Your task to perform on an android device: install app "Google Play services" Image 0: 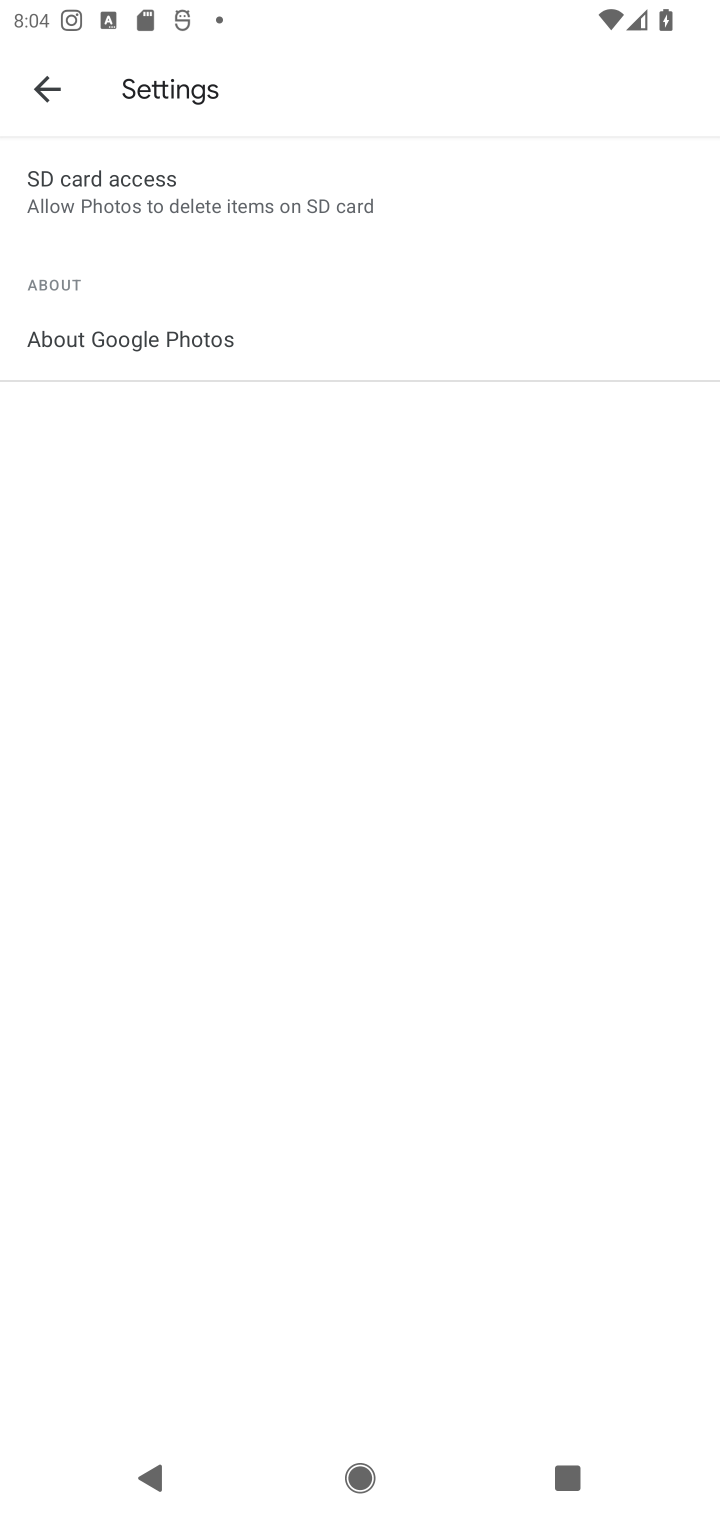
Step 0: press home button
Your task to perform on an android device: install app "Google Play services" Image 1: 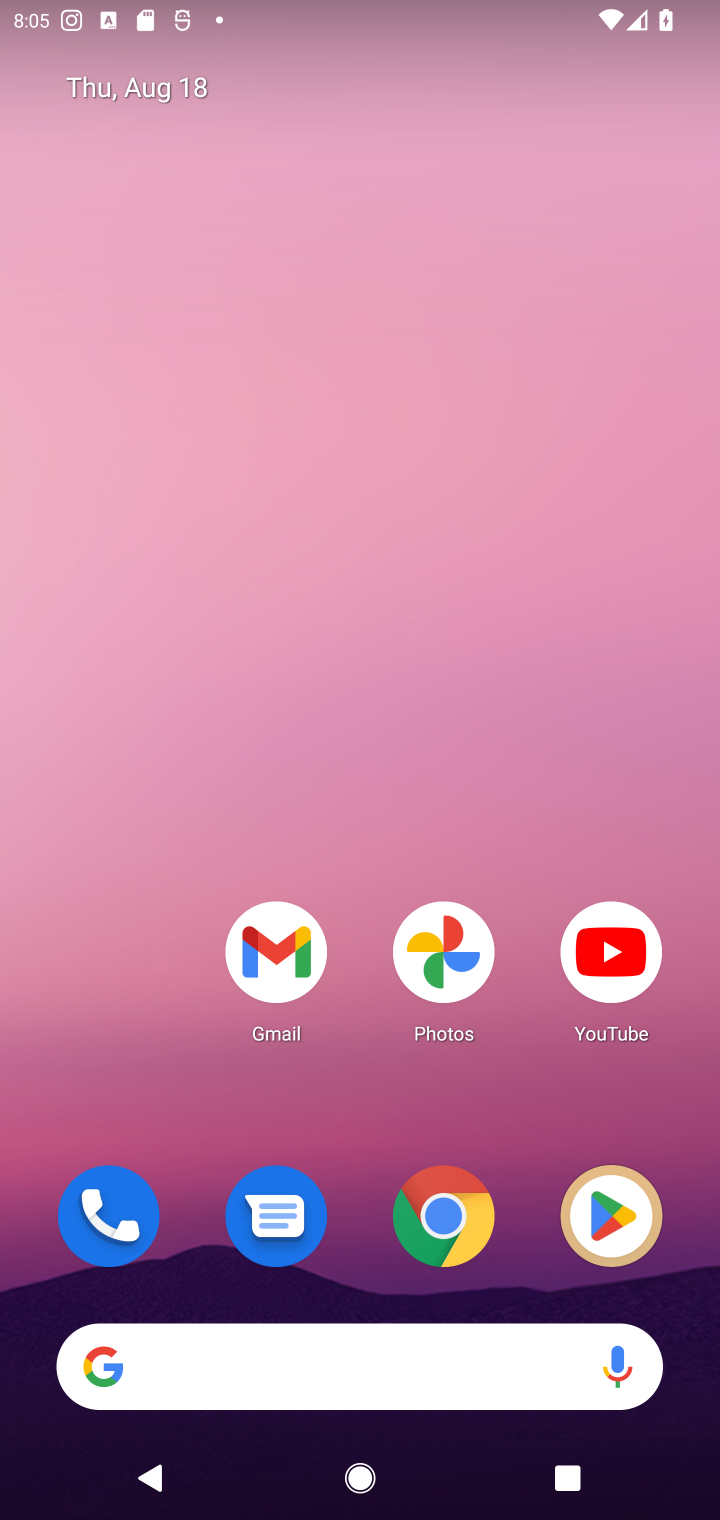
Step 1: click (587, 1211)
Your task to perform on an android device: install app "Google Play services" Image 2: 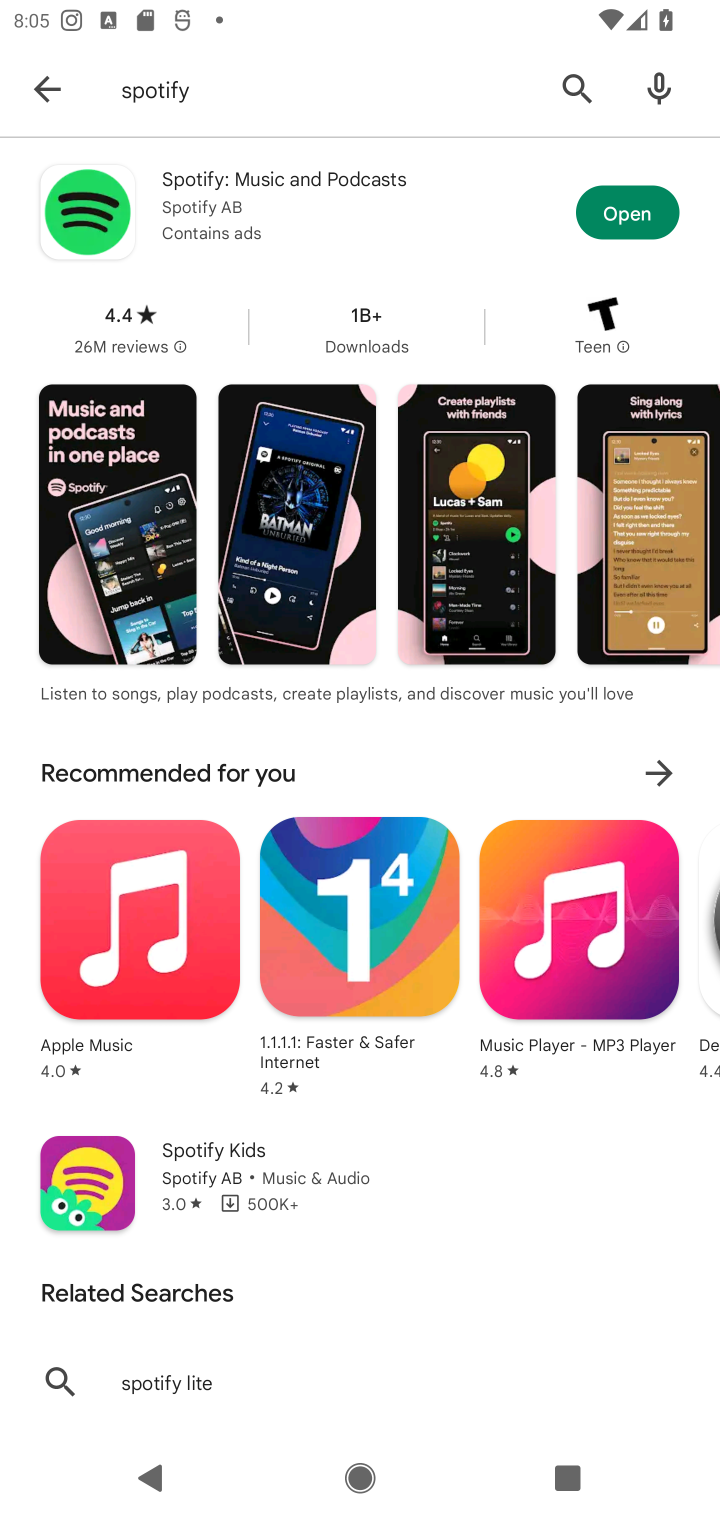
Step 2: click (573, 79)
Your task to perform on an android device: install app "Google Play services" Image 3: 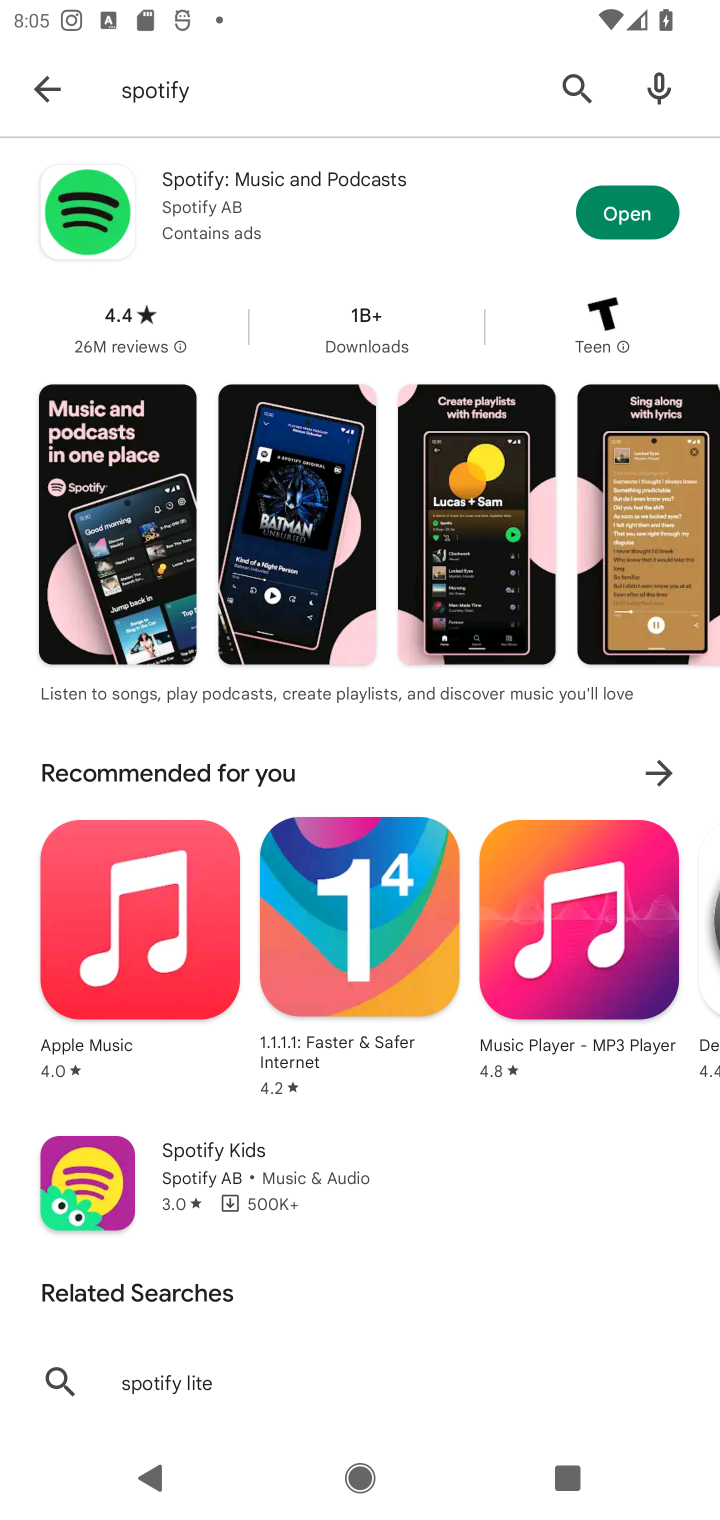
Step 3: click (573, 79)
Your task to perform on an android device: install app "Google Play services" Image 4: 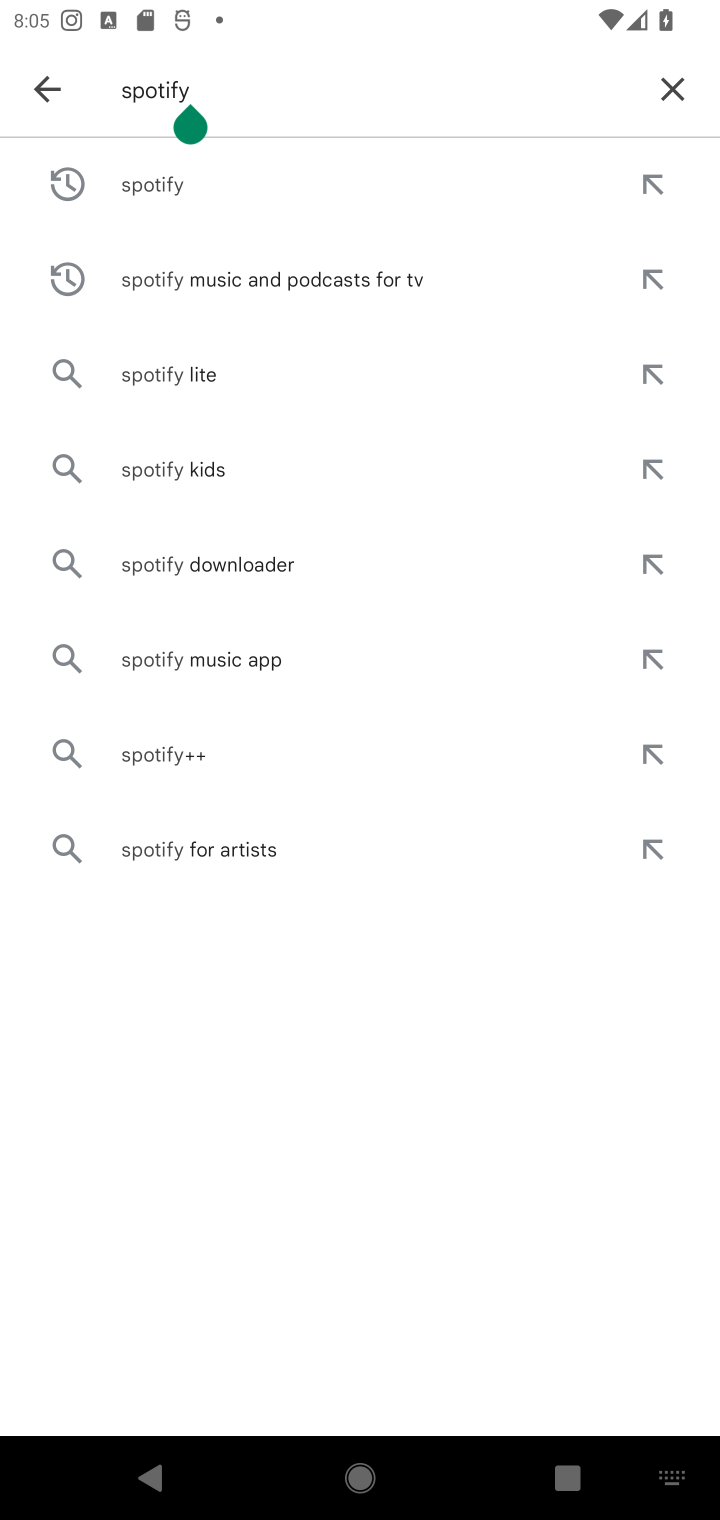
Step 4: click (660, 86)
Your task to perform on an android device: install app "Google Play services" Image 5: 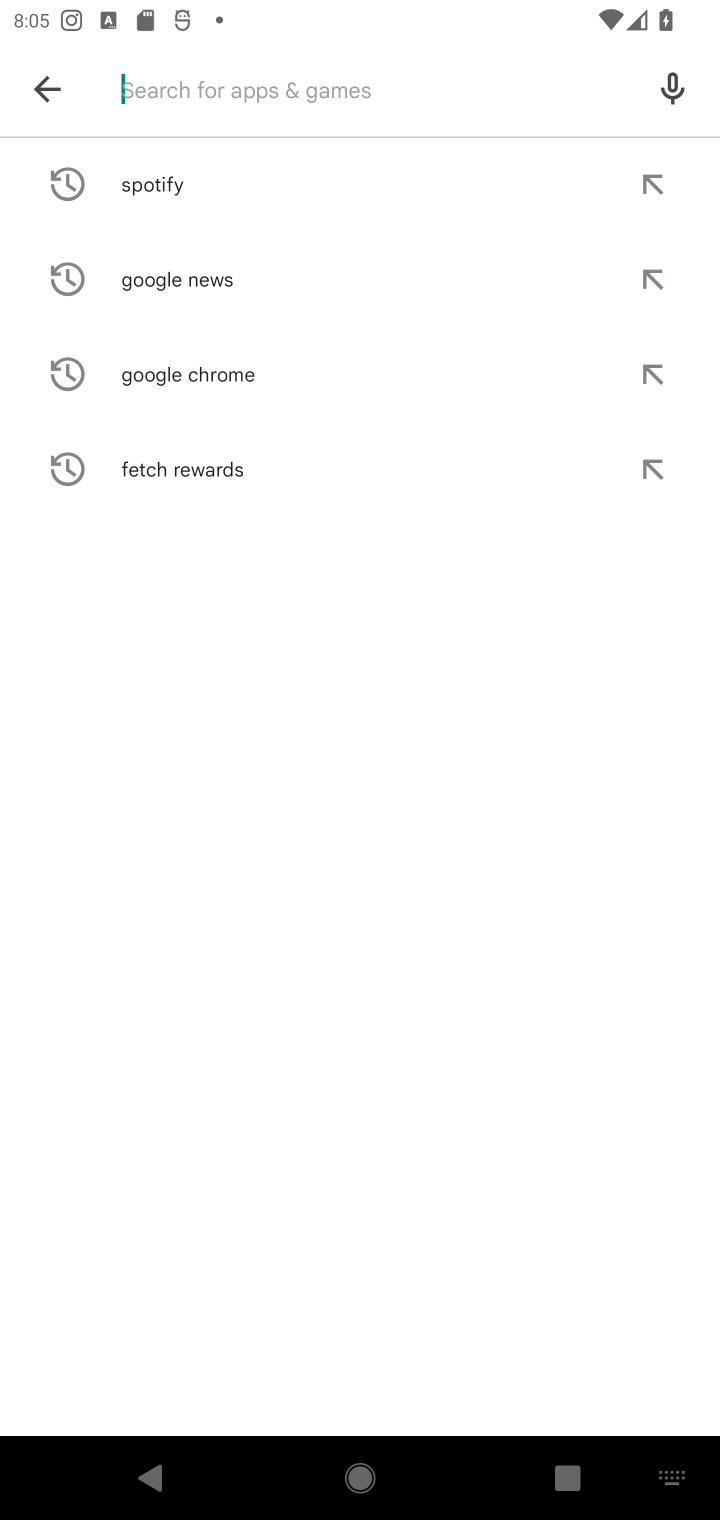
Step 5: type "Google Play services"
Your task to perform on an android device: install app "Google Play services" Image 6: 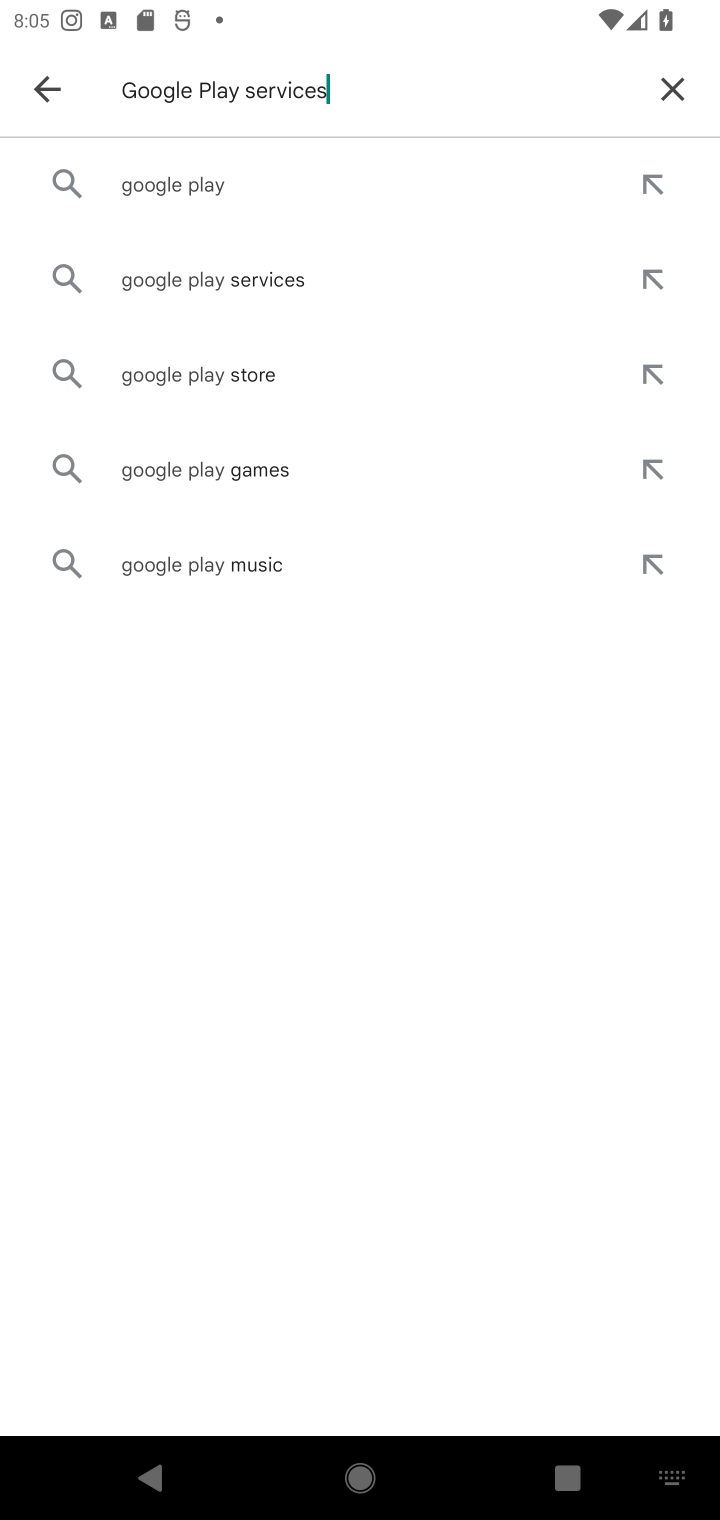
Step 6: type ""
Your task to perform on an android device: install app "Google Play services" Image 7: 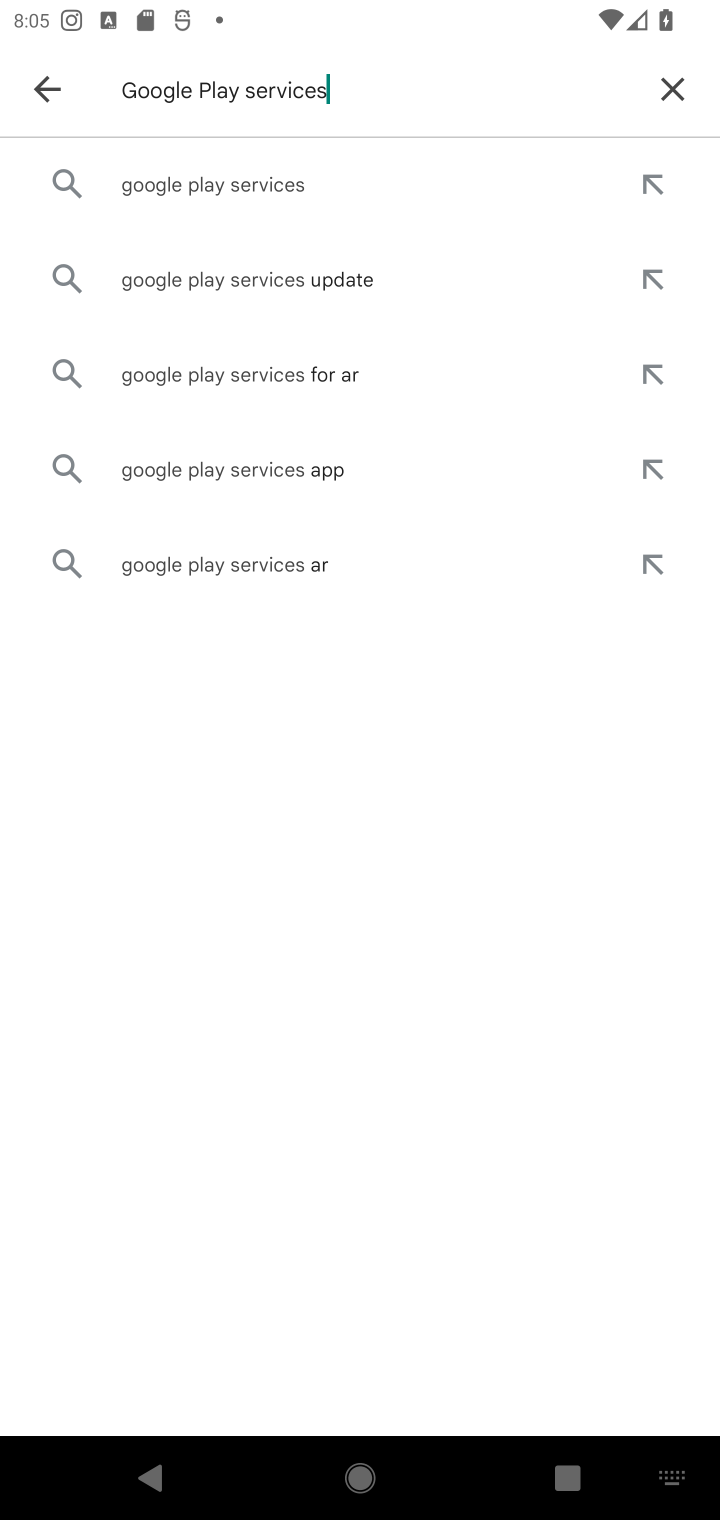
Step 7: click (325, 161)
Your task to perform on an android device: install app "Google Play services" Image 8: 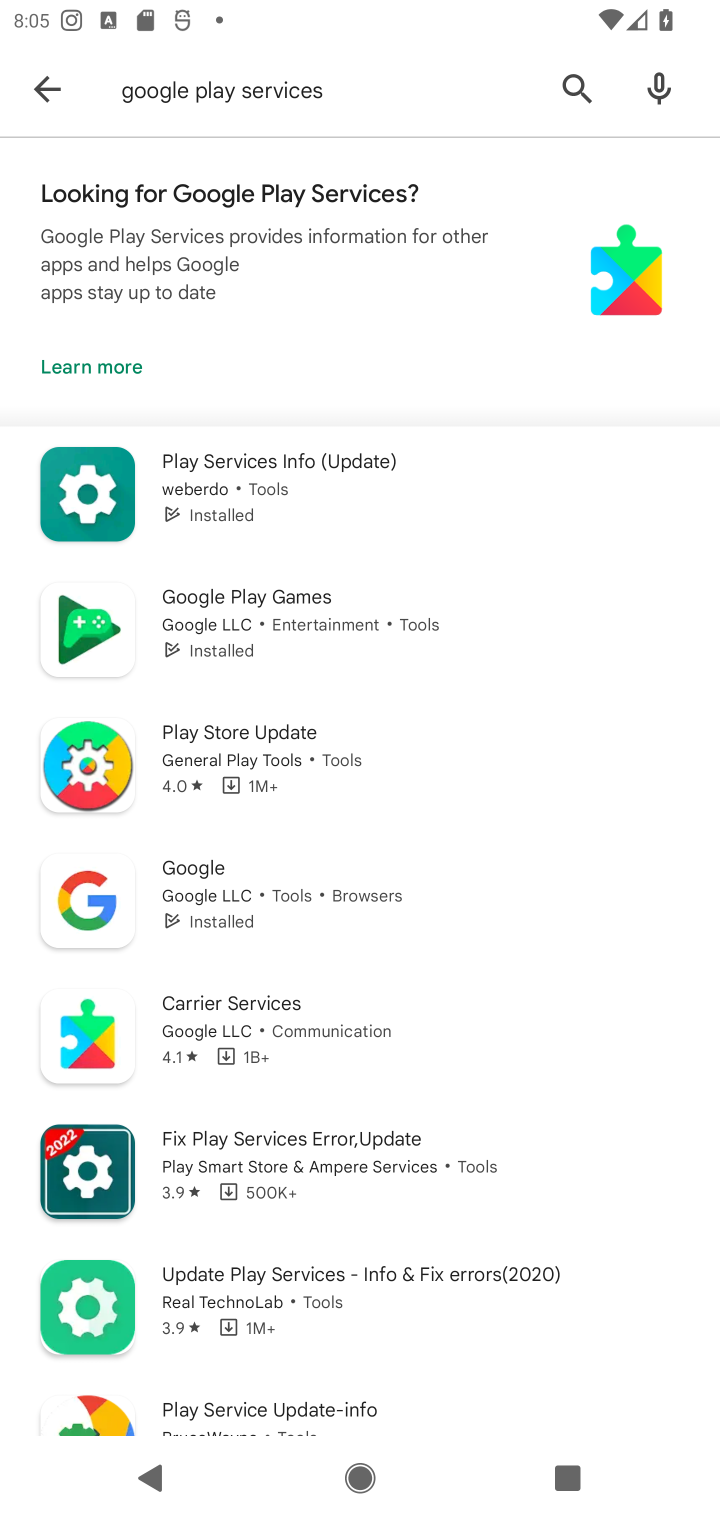
Step 8: click (337, 466)
Your task to perform on an android device: install app "Google Play services" Image 9: 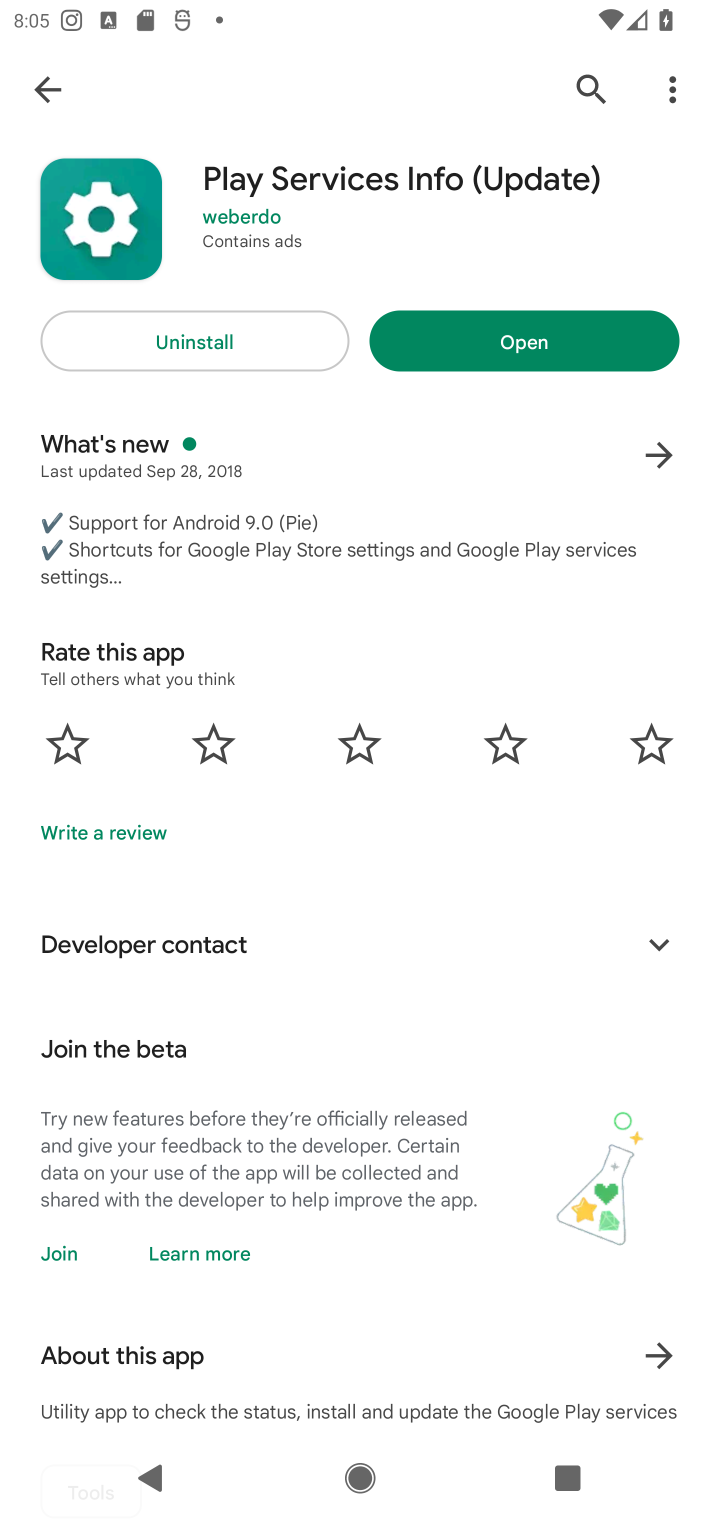
Step 9: task complete